Your task to perform on an android device: Go to sound settings Image 0: 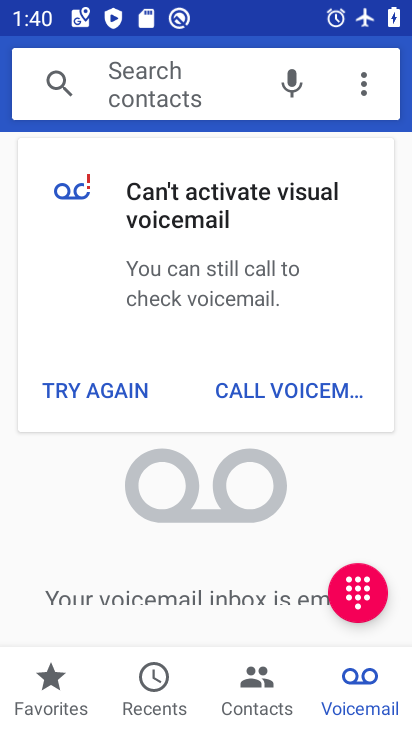
Step 0: press home button
Your task to perform on an android device: Go to sound settings Image 1: 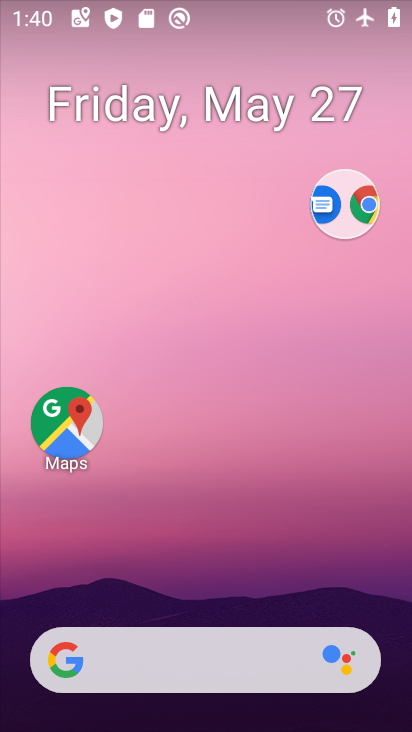
Step 1: drag from (208, 650) to (184, 110)
Your task to perform on an android device: Go to sound settings Image 2: 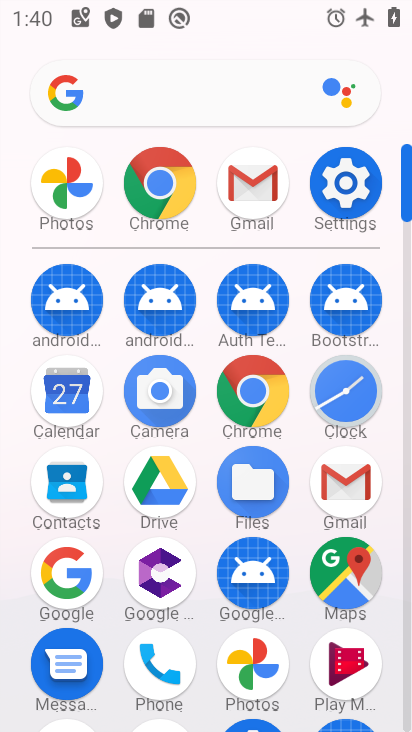
Step 2: click (350, 196)
Your task to perform on an android device: Go to sound settings Image 3: 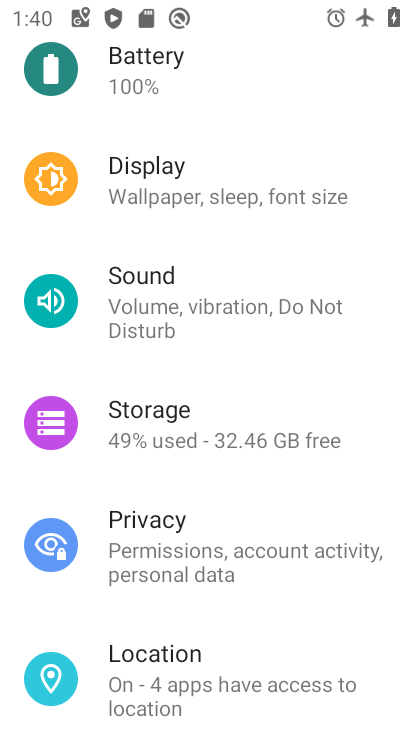
Step 3: click (233, 321)
Your task to perform on an android device: Go to sound settings Image 4: 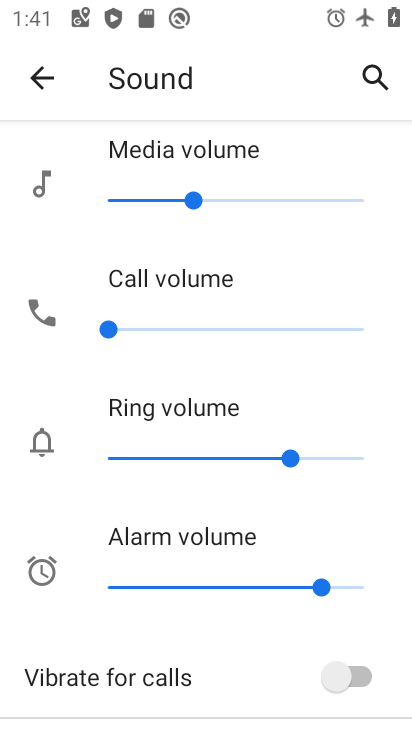
Step 4: task complete